Your task to perform on an android device: Show me the alarms in the clock app Image 0: 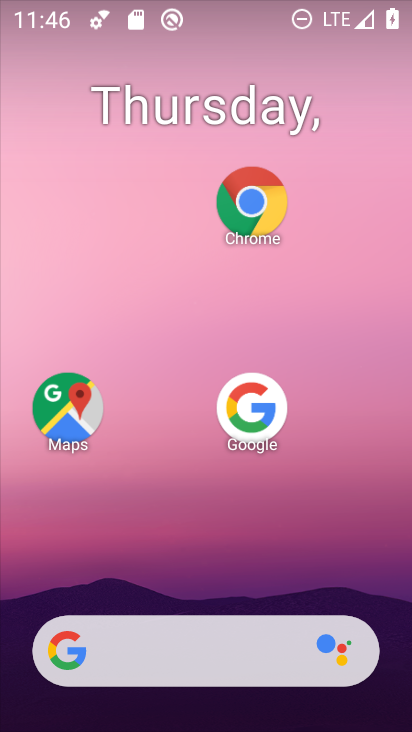
Step 0: drag from (148, 12) to (196, 14)
Your task to perform on an android device: Show me the alarms in the clock app Image 1: 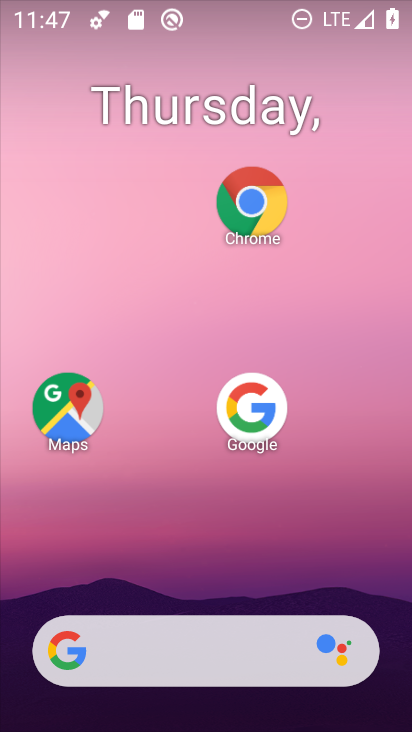
Step 1: drag from (201, 614) to (95, 7)
Your task to perform on an android device: Show me the alarms in the clock app Image 2: 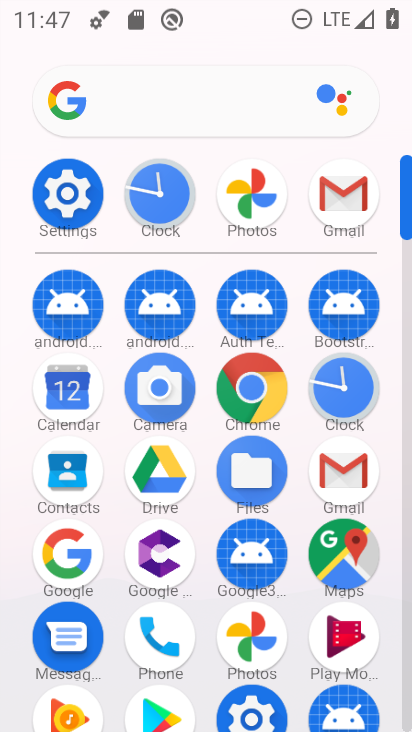
Step 2: click (345, 391)
Your task to perform on an android device: Show me the alarms in the clock app Image 3: 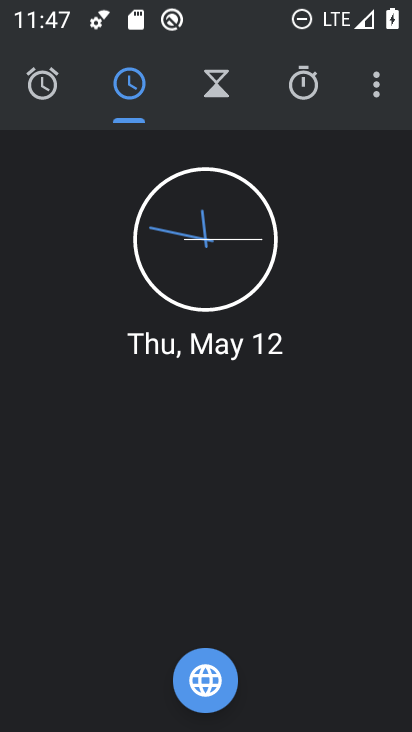
Step 3: click (60, 88)
Your task to perform on an android device: Show me the alarms in the clock app Image 4: 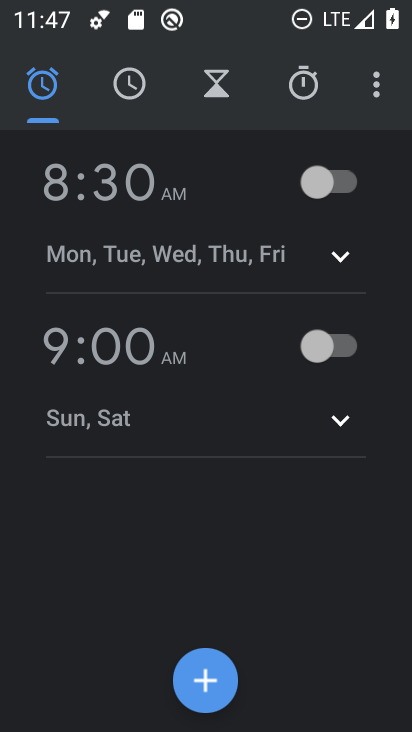
Step 4: task complete